Your task to perform on an android device: Open Reddit.com Image 0: 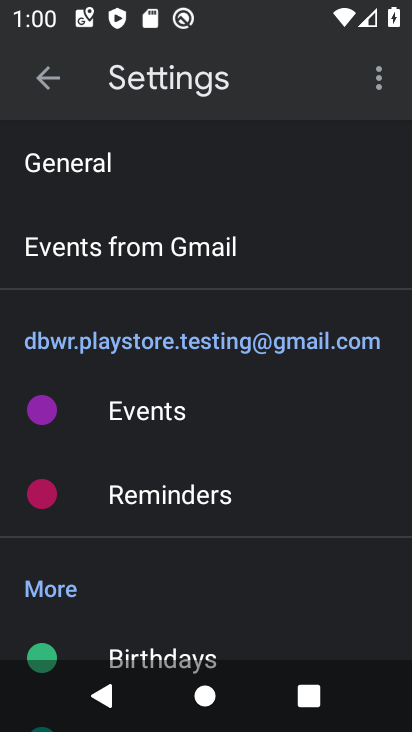
Step 0: press home button
Your task to perform on an android device: Open Reddit.com Image 1: 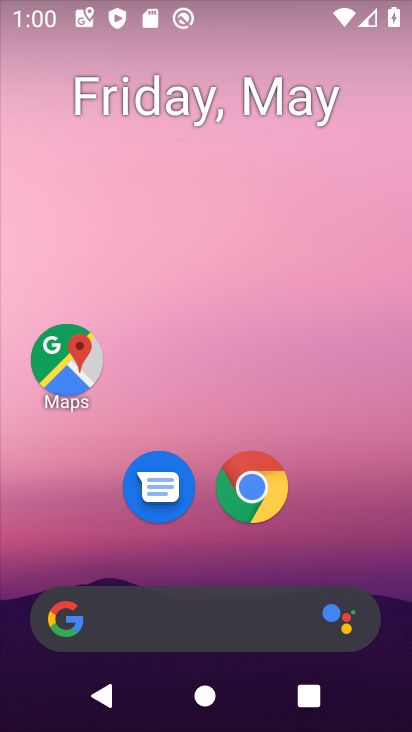
Step 1: click (181, 630)
Your task to perform on an android device: Open Reddit.com Image 2: 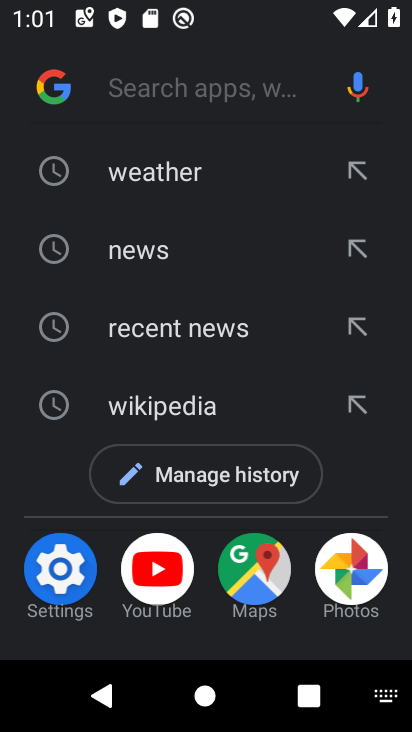
Step 2: type "reddit.com"
Your task to perform on an android device: Open Reddit.com Image 3: 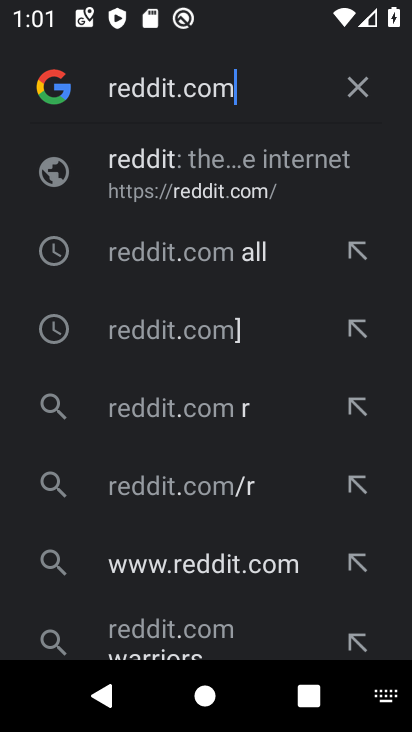
Step 3: click (193, 174)
Your task to perform on an android device: Open Reddit.com Image 4: 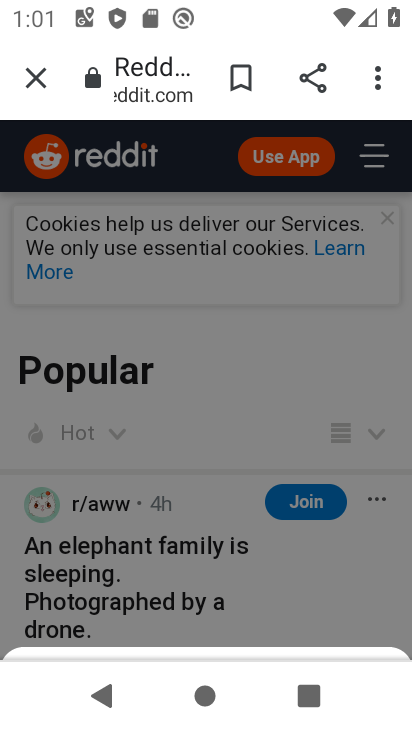
Step 4: task complete